Your task to perform on an android device: make emails show in primary in the gmail app Image 0: 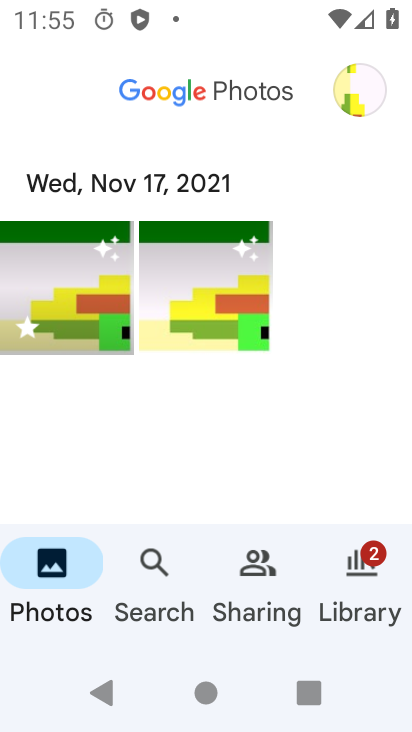
Step 0: press home button
Your task to perform on an android device: make emails show in primary in the gmail app Image 1: 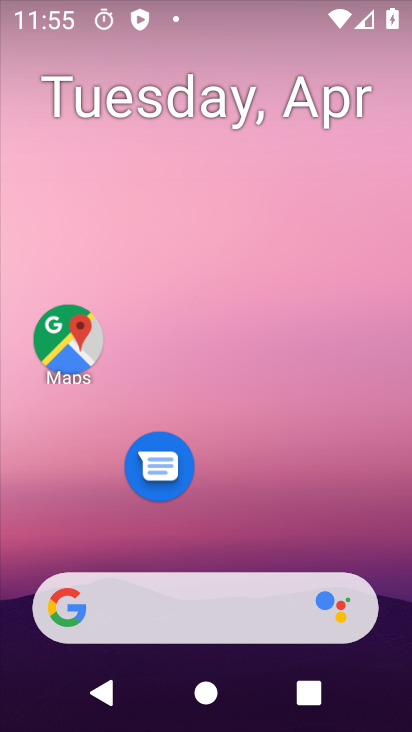
Step 1: drag from (285, 581) to (285, 544)
Your task to perform on an android device: make emails show in primary in the gmail app Image 2: 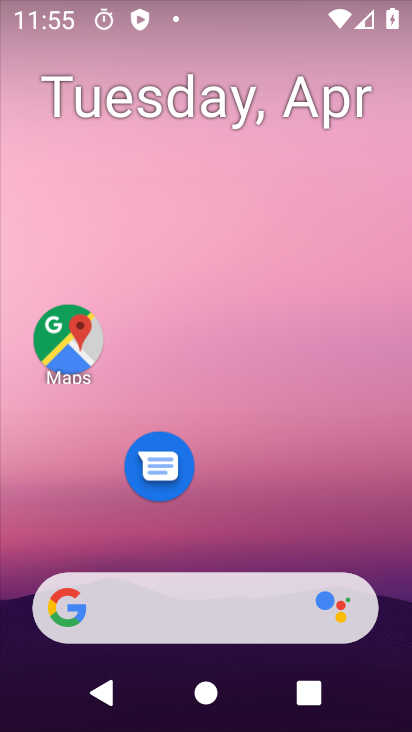
Step 2: drag from (285, 540) to (271, 251)
Your task to perform on an android device: make emails show in primary in the gmail app Image 3: 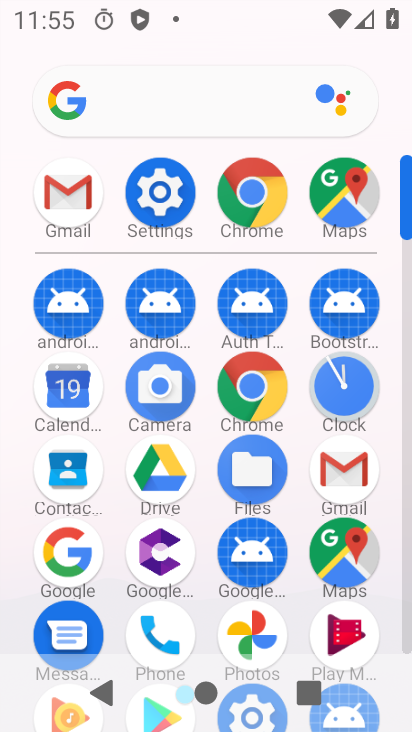
Step 3: click (88, 228)
Your task to perform on an android device: make emails show in primary in the gmail app Image 4: 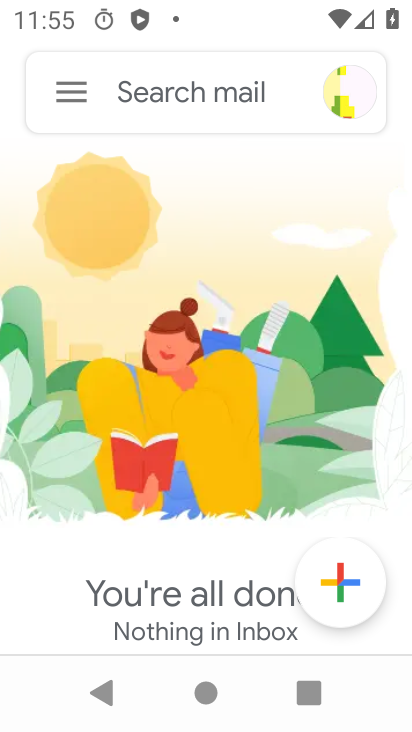
Step 4: click (183, 78)
Your task to perform on an android device: make emails show in primary in the gmail app Image 5: 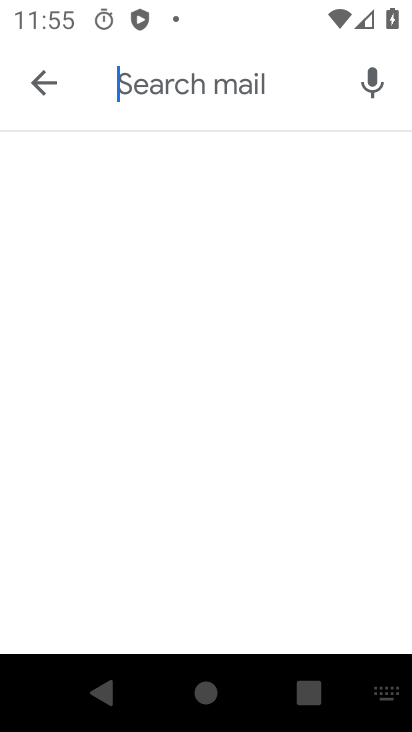
Step 5: press back button
Your task to perform on an android device: make emails show in primary in the gmail app Image 6: 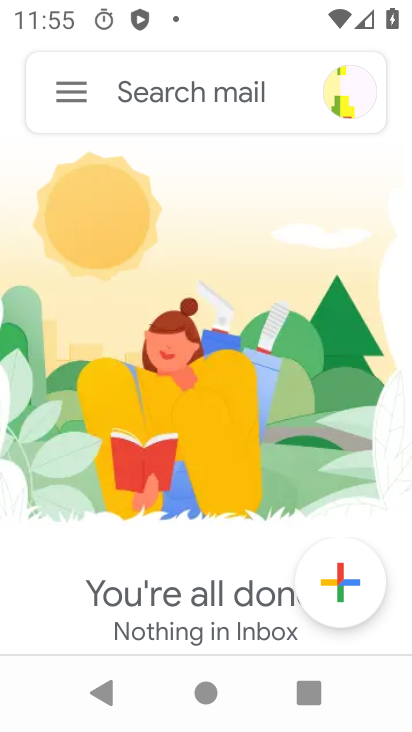
Step 6: click (74, 93)
Your task to perform on an android device: make emails show in primary in the gmail app Image 7: 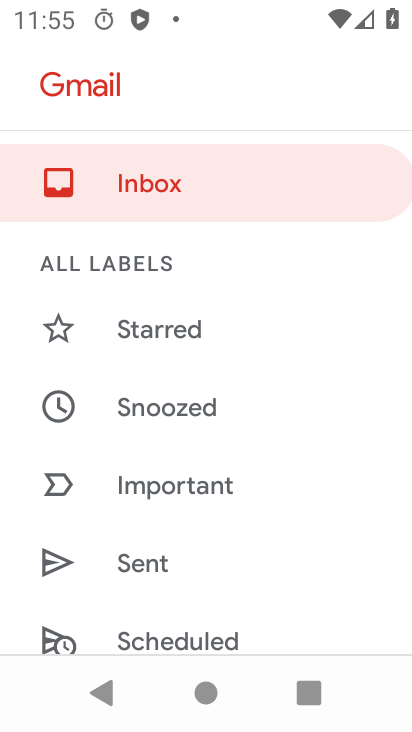
Step 7: drag from (278, 633) to (310, 73)
Your task to perform on an android device: make emails show in primary in the gmail app Image 8: 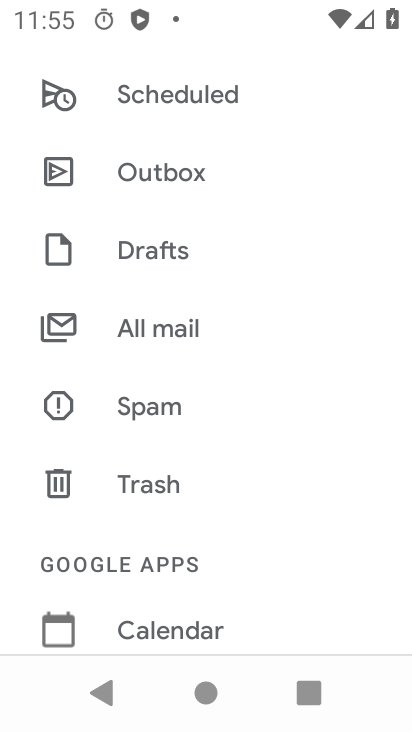
Step 8: drag from (212, 533) to (228, 225)
Your task to perform on an android device: make emails show in primary in the gmail app Image 9: 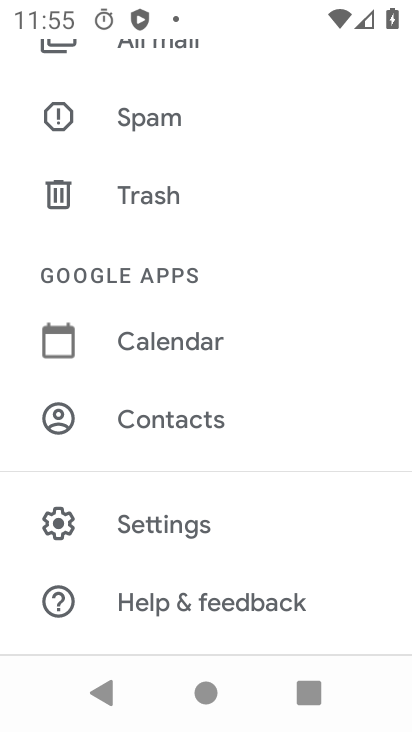
Step 9: click (210, 505)
Your task to perform on an android device: make emails show in primary in the gmail app Image 10: 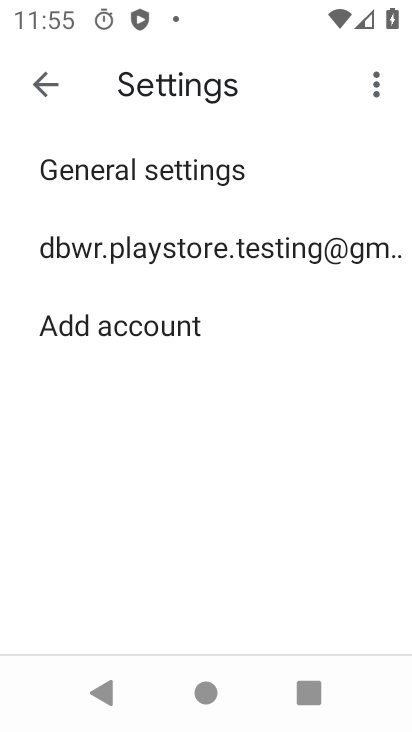
Step 10: click (269, 250)
Your task to perform on an android device: make emails show in primary in the gmail app Image 11: 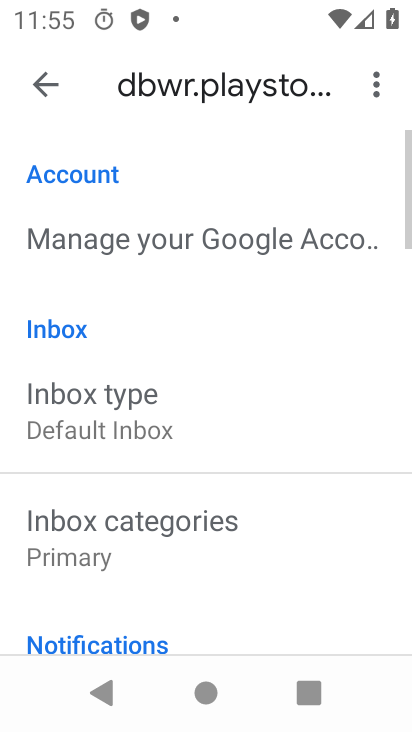
Step 11: drag from (210, 499) to (226, 333)
Your task to perform on an android device: make emails show in primary in the gmail app Image 12: 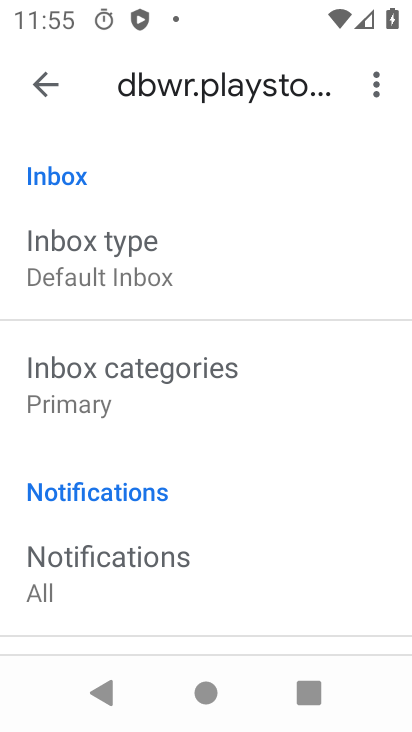
Step 12: click (188, 385)
Your task to perform on an android device: make emails show in primary in the gmail app Image 13: 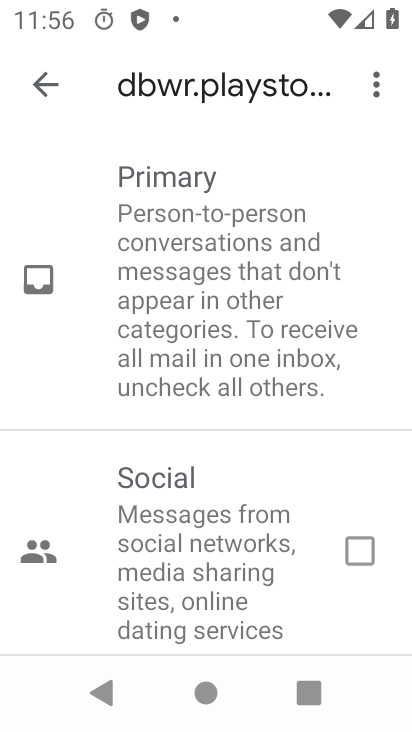
Step 13: click (218, 306)
Your task to perform on an android device: make emails show in primary in the gmail app Image 14: 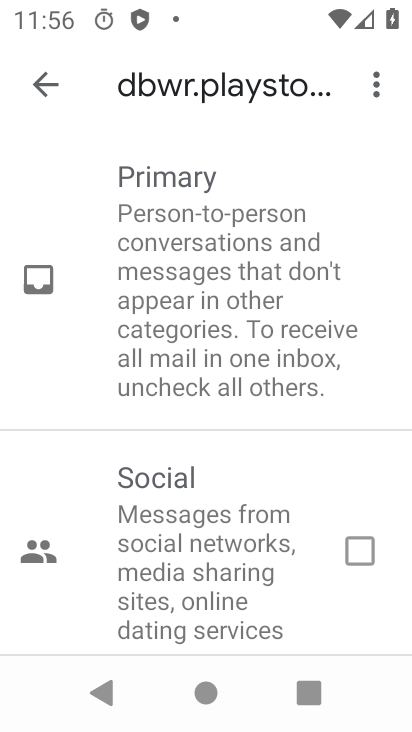
Step 14: task complete